Your task to perform on an android device: toggle javascript in the chrome app Image 0: 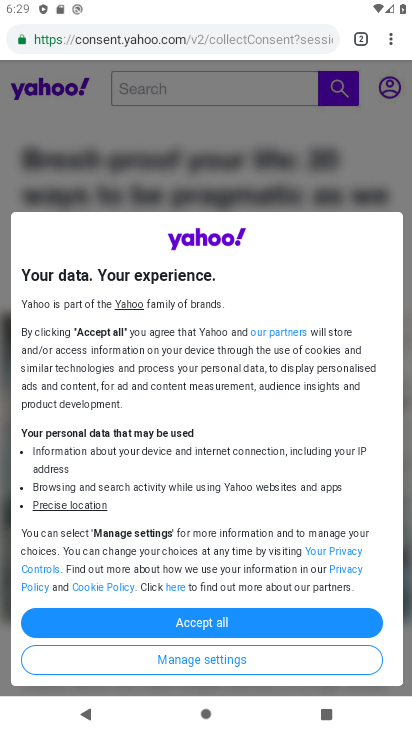
Step 0: press back button
Your task to perform on an android device: toggle javascript in the chrome app Image 1: 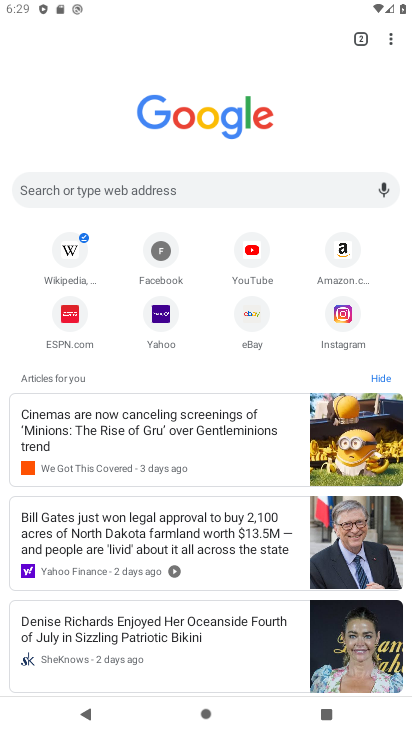
Step 1: drag from (387, 36) to (255, 330)
Your task to perform on an android device: toggle javascript in the chrome app Image 2: 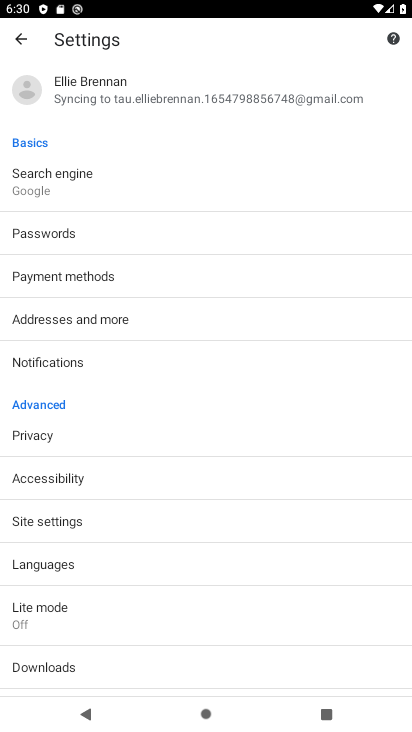
Step 2: click (35, 527)
Your task to perform on an android device: toggle javascript in the chrome app Image 3: 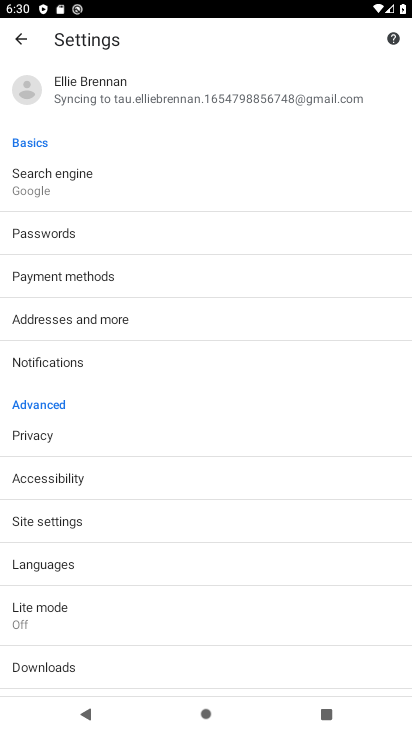
Step 3: click (48, 524)
Your task to perform on an android device: toggle javascript in the chrome app Image 4: 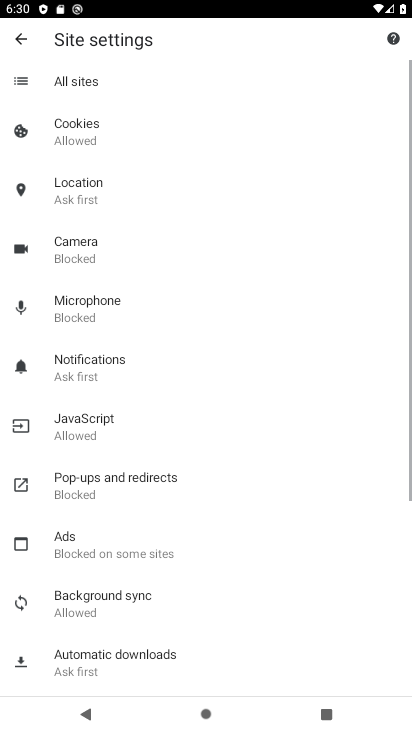
Step 4: click (88, 424)
Your task to perform on an android device: toggle javascript in the chrome app Image 5: 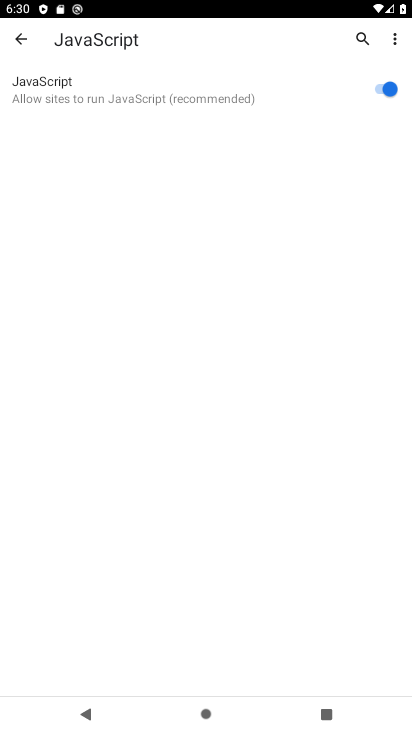
Step 5: click (380, 86)
Your task to perform on an android device: toggle javascript in the chrome app Image 6: 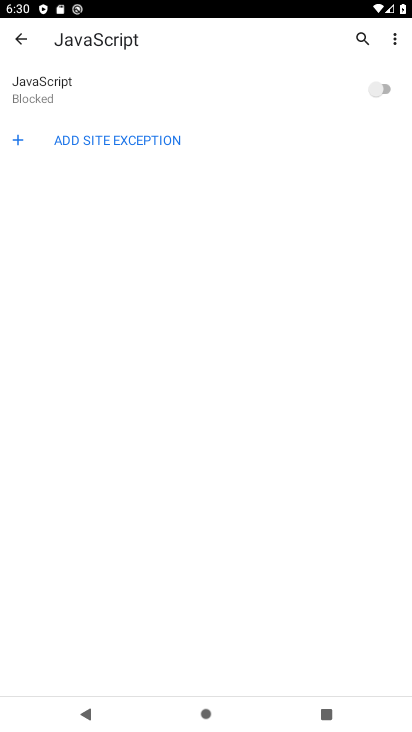
Step 6: task complete